Your task to perform on an android device: check out phone information Image 0: 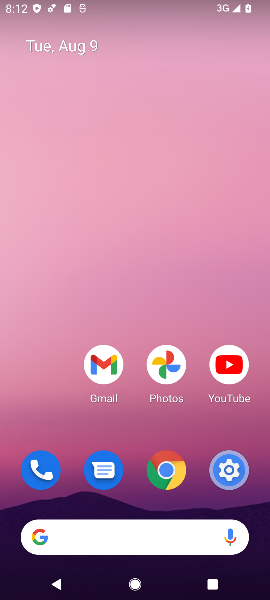
Step 0: click (228, 468)
Your task to perform on an android device: check out phone information Image 1: 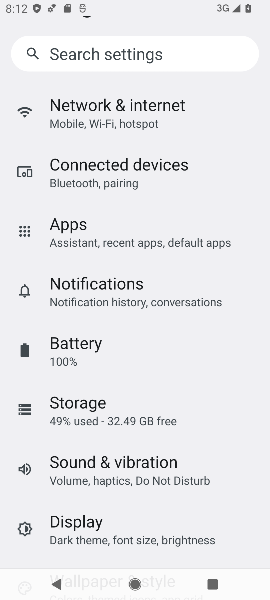
Step 1: drag from (114, 321) to (139, 270)
Your task to perform on an android device: check out phone information Image 2: 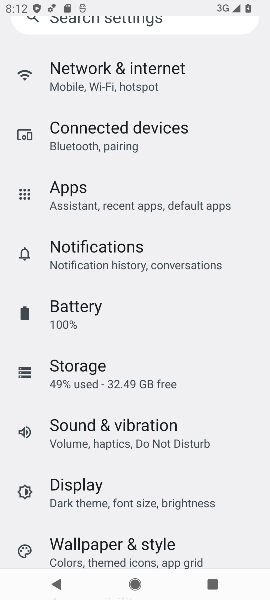
Step 2: drag from (104, 391) to (162, 310)
Your task to perform on an android device: check out phone information Image 3: 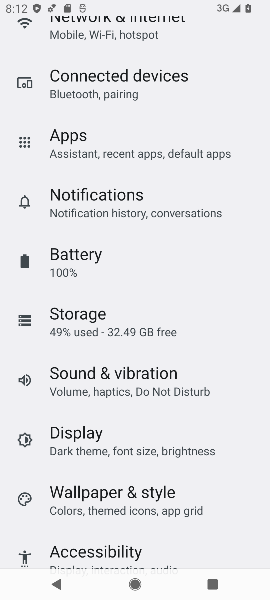
Step 3: drag from (94, 412) to (138, 345)
Your task to perform on an android device: check out phone information Image 4: 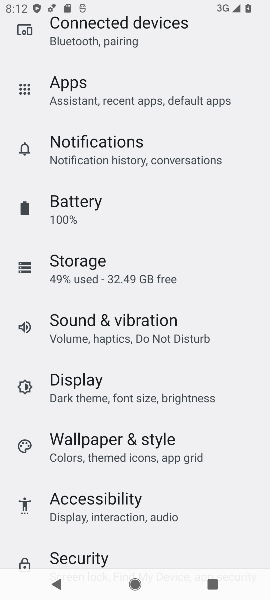
Step 4: drag from (91, 417) to (143, 349)
Your task to perform on an android device: check out phone information Image 5: 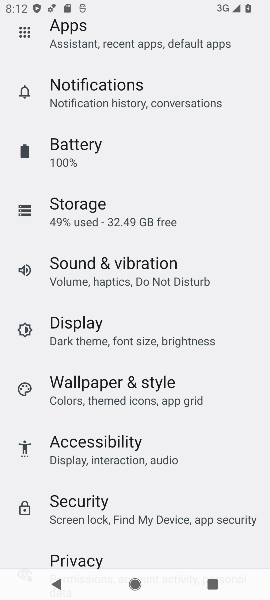
Step 5: drag from (73, 468) to (140, 372)
Your task to perform on an android device: check out phone information Image 6: 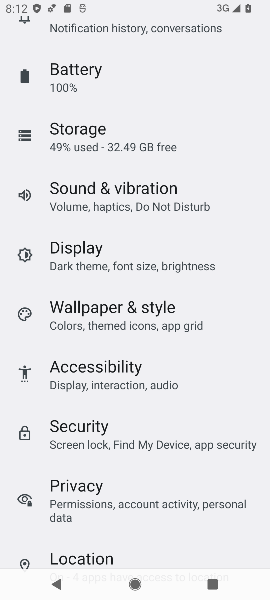
Step 6: drag from (72, 458) to (135, 382)
Your task to perform on an android device: check out phone information Image 7: 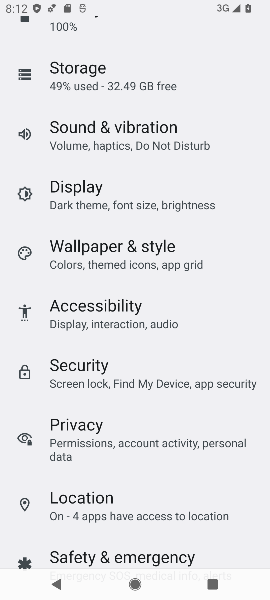
Step 7: drag from (74, 455) to (123, 379)
Your task to perform on an android device: check out phone information Image 8: 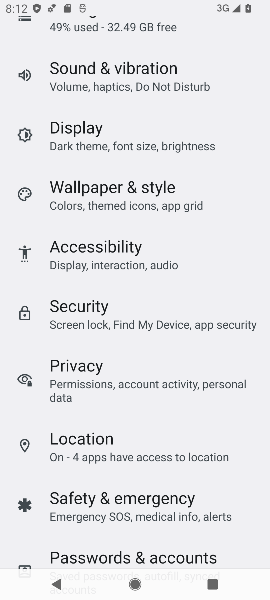
Step 8: drag from (63, 469) to (125, 396)
Your task to perform on an android device: check out phone information Image 9: 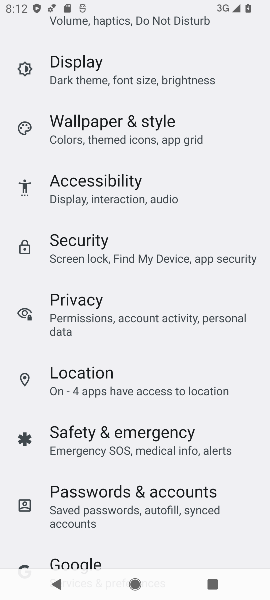
Step 9: drag from (77, 472) to (135, 389)
Your task to perform on an android device: check out phone information Image 10: 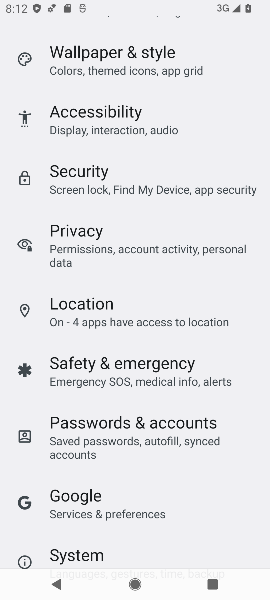
Step 10: drag from (73, 487) to (146, 399)
Your task to perform on an android device: check out phone information Image 11: 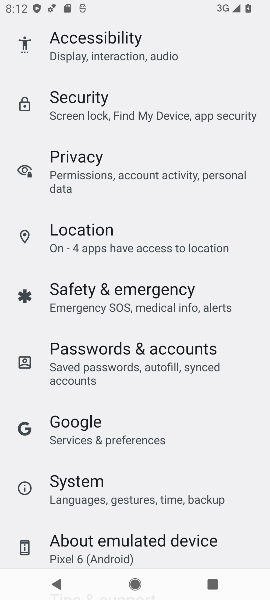
Step 11: drag from (68, 506) to (148, 407)
Your task to perform on an android device: check out phone information Image 12: 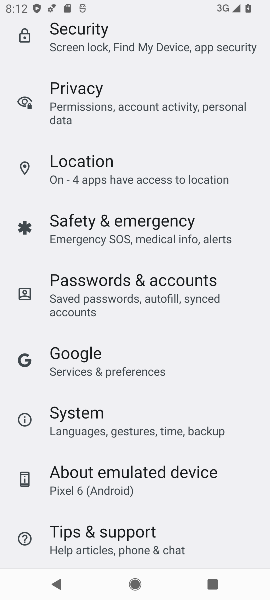
Step 12: click (117, 470)
Your task to perform on an android device: check out phone information Image 13: 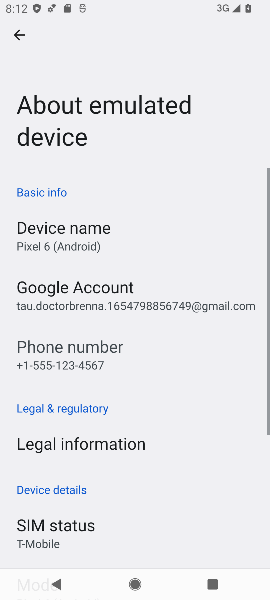
Step 13: task complete